Your task to perform on an android device: Open Google Chrome and open the bookmarks view Image 0: 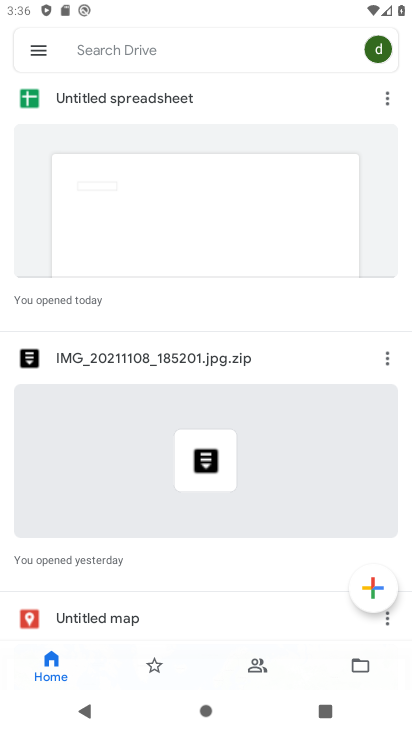
Step 0: press home button
Your task to perform on an android device: Open Google Chrome and open the bookmarks view Image 1: 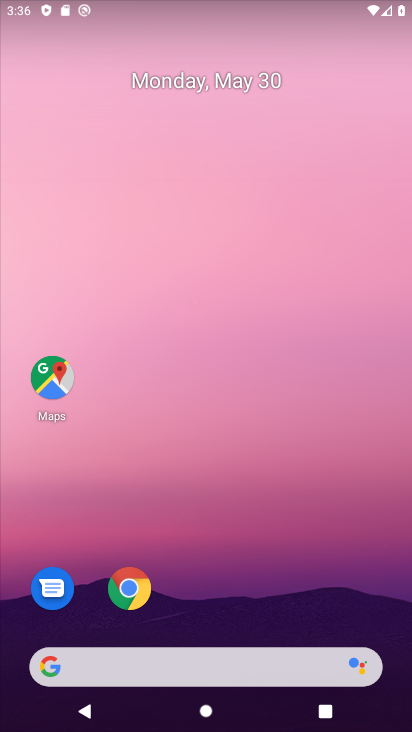
Step 1: click (126, 591)
Your task to perform on an android device: Open Google Chrome and open the bookmarks view Image 2: 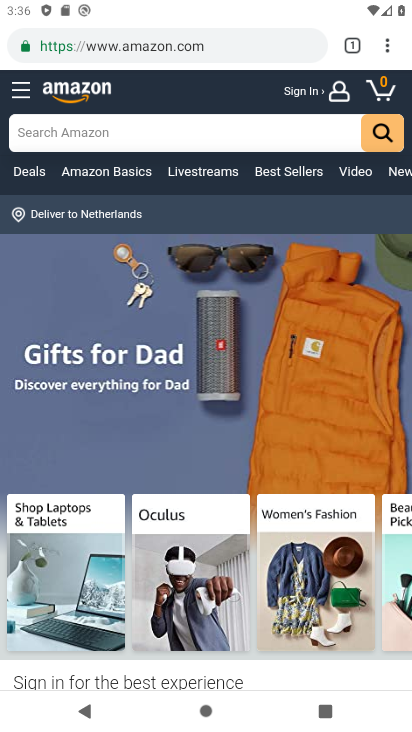
Step 2: click (384, 54)
Your task to perform on an android device: Open Google Chrome and open the bookmarks view Image 3: 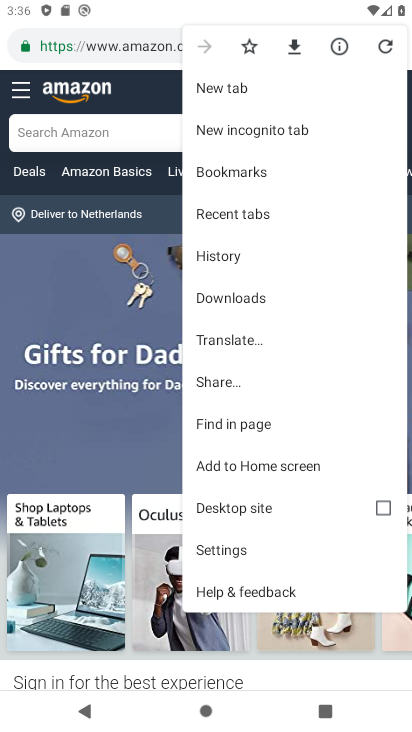
Step 3: click (226, 172)
Your task to perform on an android device: Open Google Chrome and open the bookmarks view Image 4: 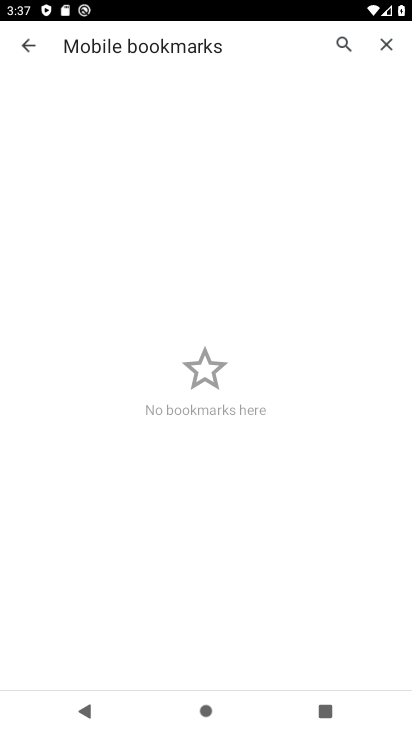
Step 4: task complete